Your task to perform on an android device: Open ESPN.com Image 0: 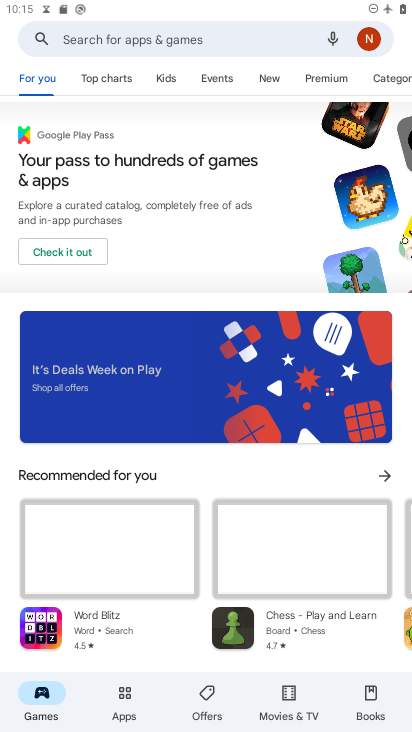
Step 0: press home button
Your task to perform on an android device: Open ESPN.com Image 1: 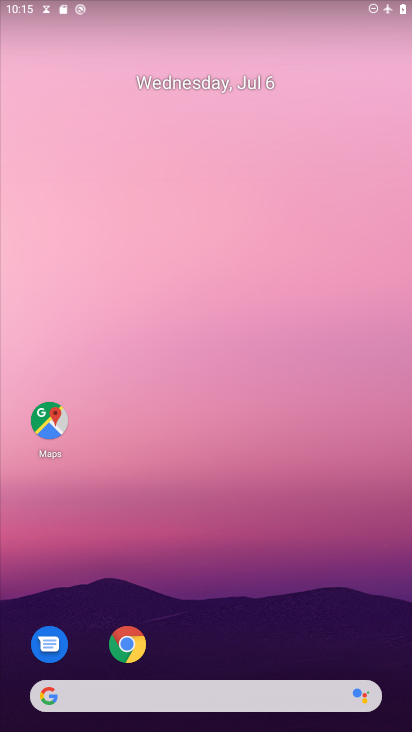
Step 1: click (142, 644)
Your task to perform on an android device: Open ESPN.com Image 2: 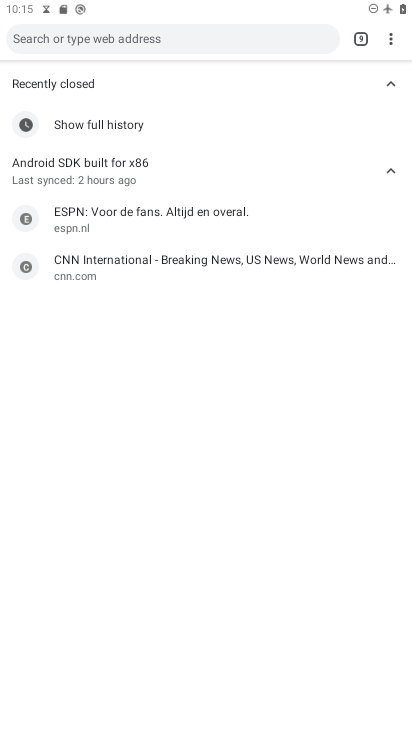
Step 2: click (357, 39)
Your task to perform on an android device: Open ESPN.com Image 3: 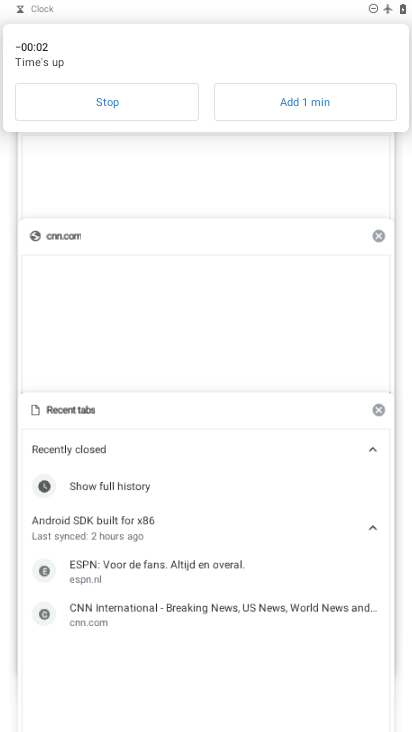
Step 3: click (128, 110)
Your task to perform on an android device: Open ESPN.com Image 4: 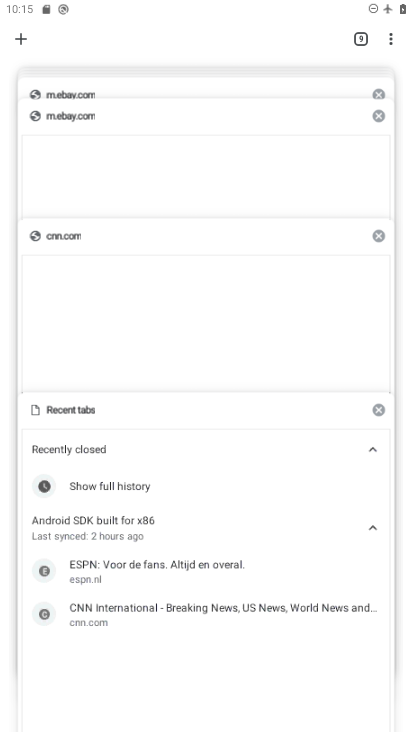
Step 4: drag from (138, 180) to (175, 465)
Your task to perform on an android device: Open ESPN.com Image 5: 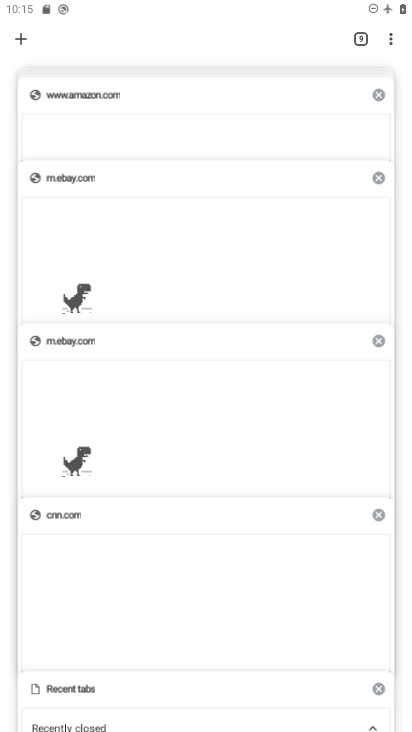
Step 5: click (25, 39)
Your task to perform on an android device: Open ESPN.com Image 6: 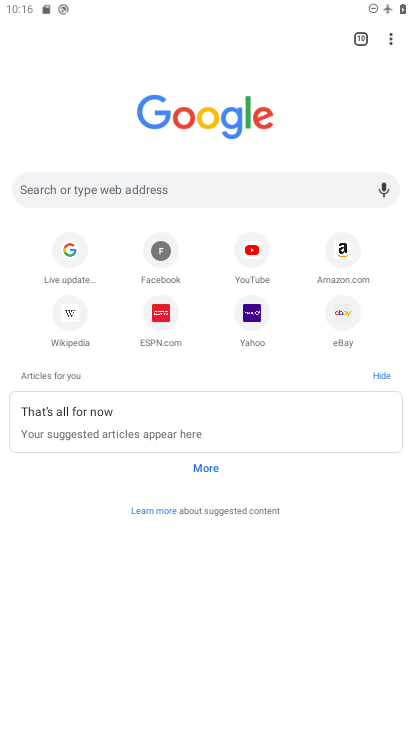
Step 6: click (154, 180)
Your task to perform on an android device: Open ESPN.com Image 7: 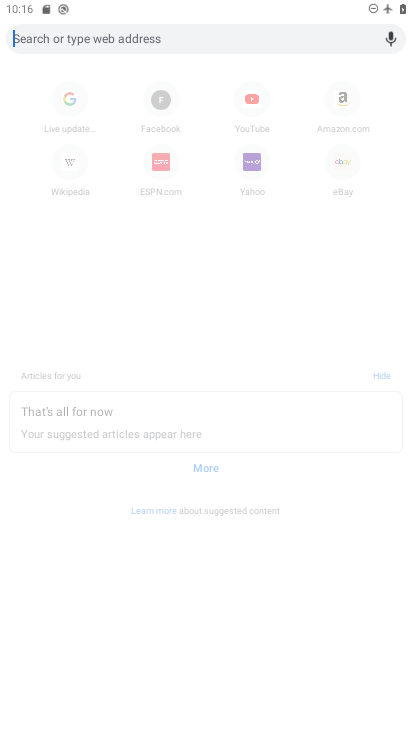
Step 7: click (167, 331)
Your task to perform on an android device: Open ESPN.com Image 8: 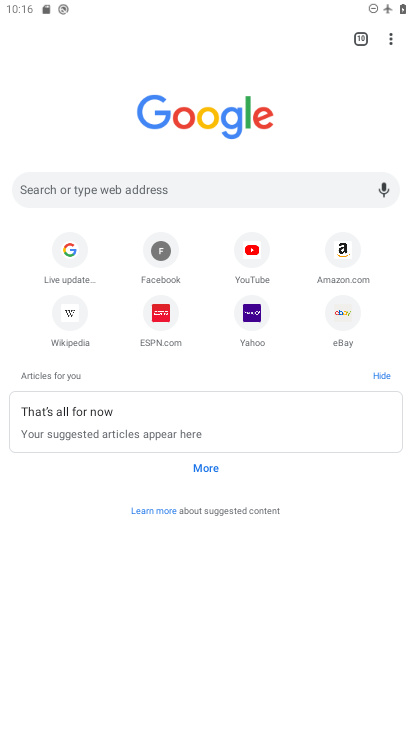
Step 8: click (148, 178)
Your task to perform on an android device: Open ESPN.com Image 9: 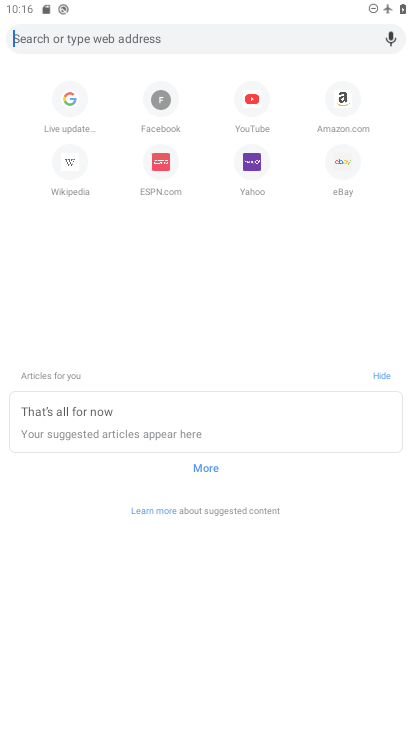
Step 9: click (152, 322)
Your task to perform on an android device: Open ESPN.com Image 10: 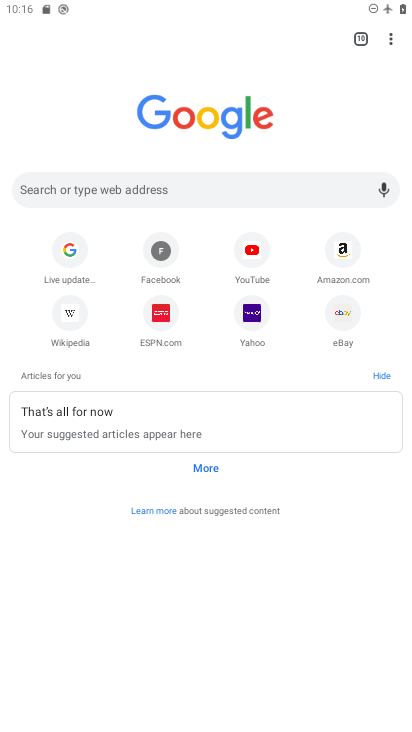
Step 10: click (155, 176)
Your task to perform on an android device: Open ESPN.com Image 11: 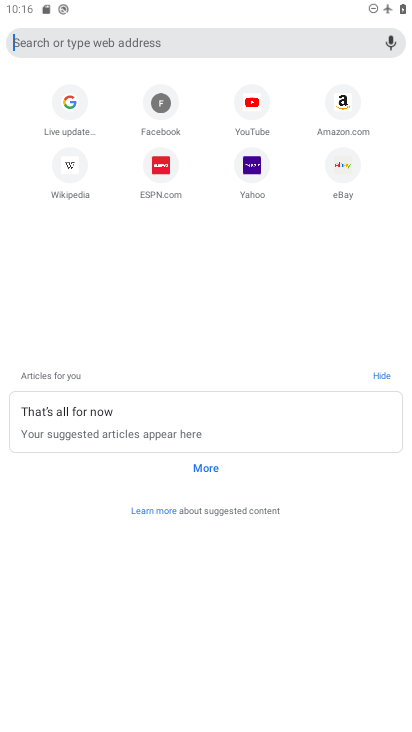
Step 11: click (164, 305)
Your task to perform on an android device: Open ESPN.com Image 12: 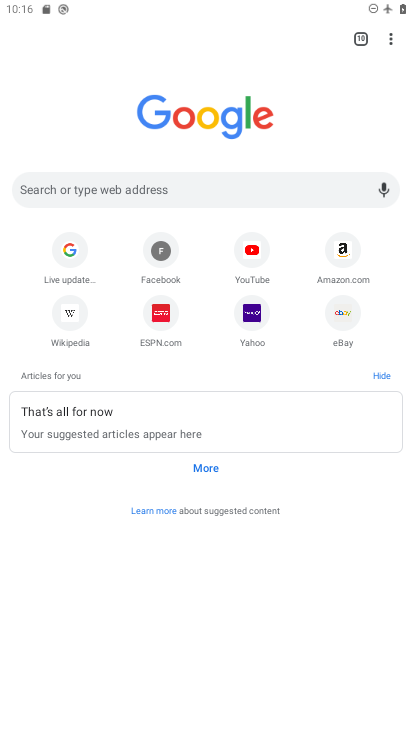
Step 12: click (164, 307)
Your task to perform on an android device: Open ESPN.com Image 13: 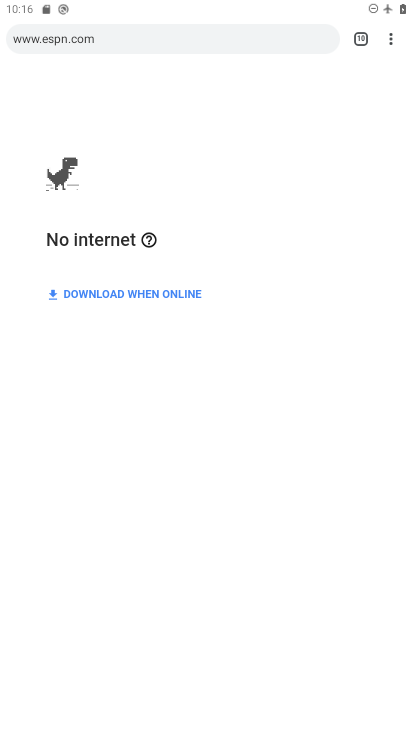
Step 13: task complete